Your task to perform on an android device: open device folders in google photos Image 0: 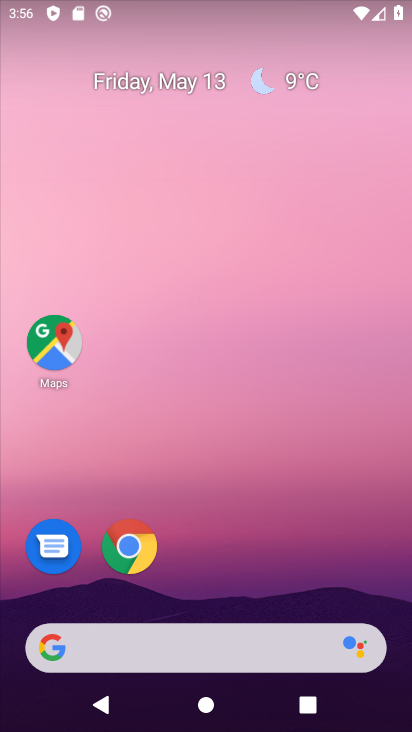
Step 0: drag from (204, 608) to (161, 40)
Your task to perform on an android device: open device folders in google photos Image 1: 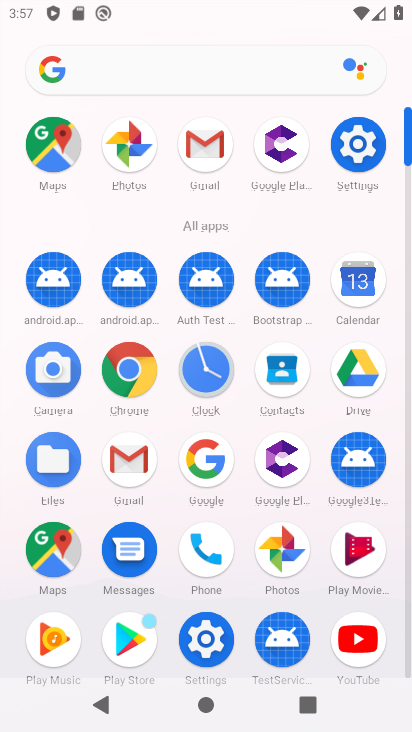
Step 1: click (286, 568)
Your task to perform on an android device: open device folders in google photos Image 2: 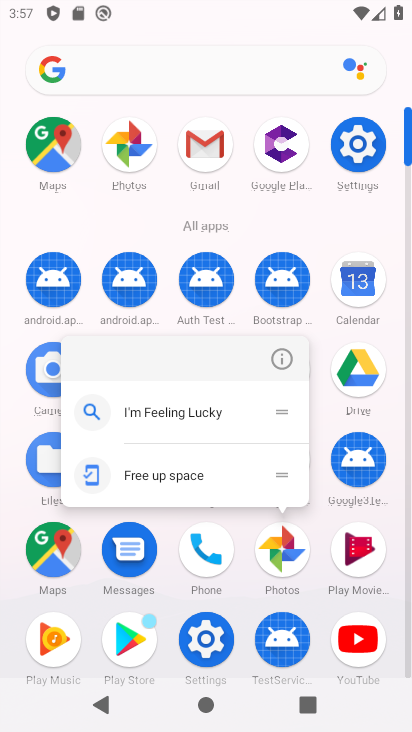
Step 2: click (285, 542)
Your task to perform on an android device: open device folders in google photos Image 3: 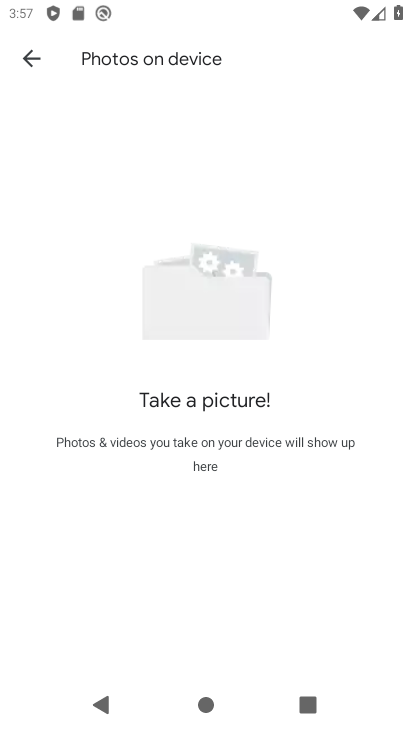
Step 3: task complete